Your task to perform on an android device: turn on translation in the chrome app Image 0: 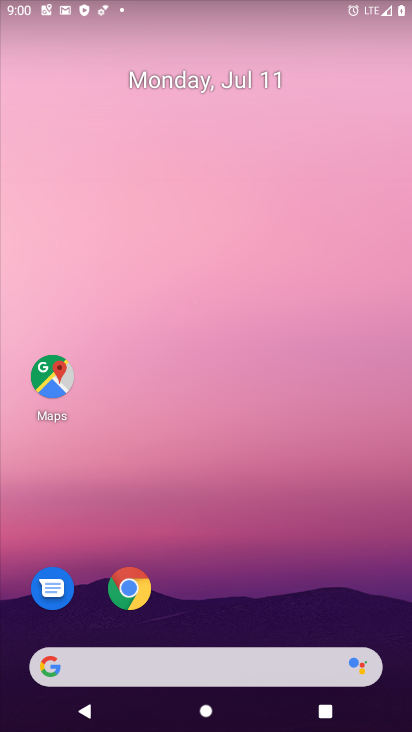
Step 0: click (152, 664)
Your task to perform on an android device: turn on translation in the chrome app Image 1: 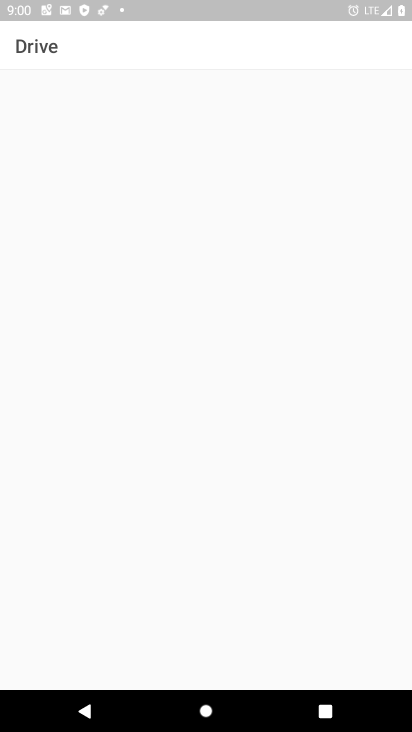
Step 1: press home button
Your task to perform on an android device: turn on translation in the chrome app Image 2: 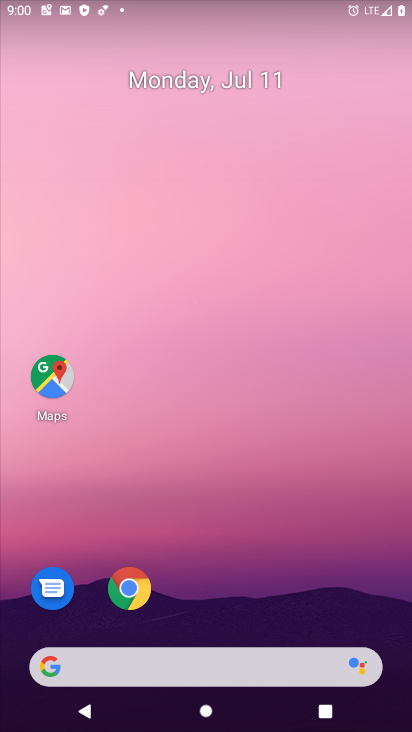
Step 2: click (131, 584)
Your task to perform on an android device: turn on translation in the chrome app Image 3: 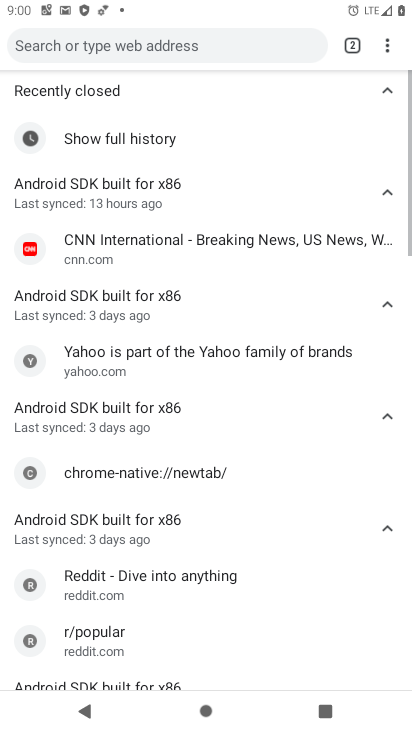
Step 3: drag from (383, 42) to (272, 427)
Your task to perform on an android device: turn on translation in the chrome app Image 4: 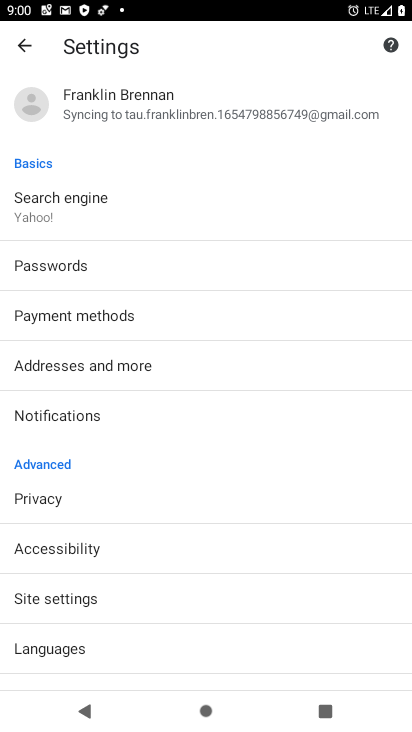
Step 4: click (79, 654)
Your task to perform on an android device: turn on translation in the chrome app Image 5: 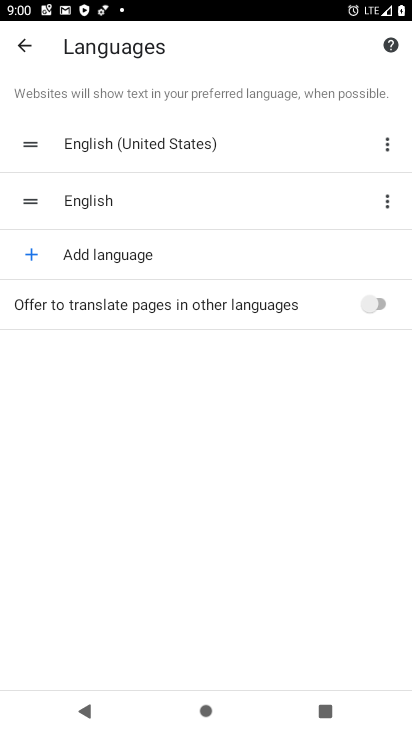
Step 5: click (382, 300)
Your task to perform on an android device: turn on translation in the chrome app Image 6: 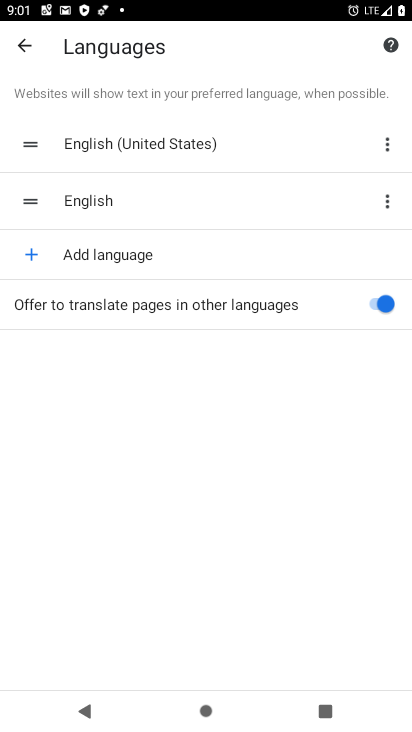
Step 6: task complete